Your task to perform on an android device: Is it going to rain this weekend? Image 0: 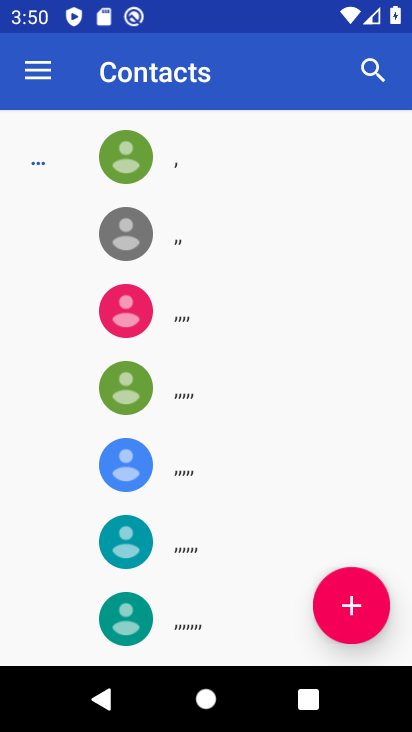
Step 0: press home button
Your task to perform on an android device: Is it going to rain this weekend? Image 1: 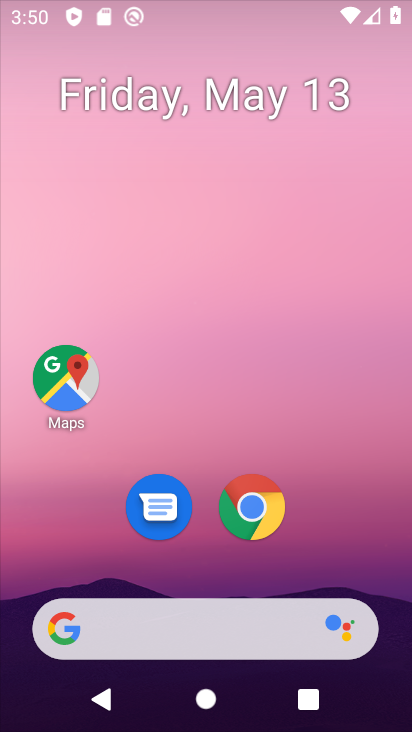
Step 1: drag from (355, 493) to (292, 38)
Your task to perform on an android device: Is it going to rain this weekend? Image 2: 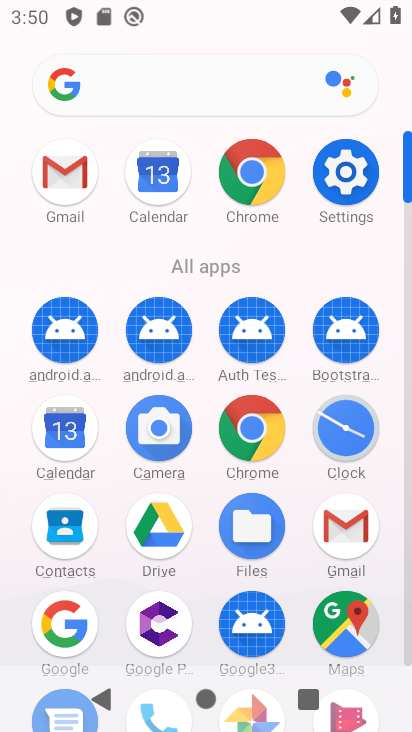
Step 2: click (245, 190)
Your task to perform on an android device: Is it going to rain this weekend? Image 3: 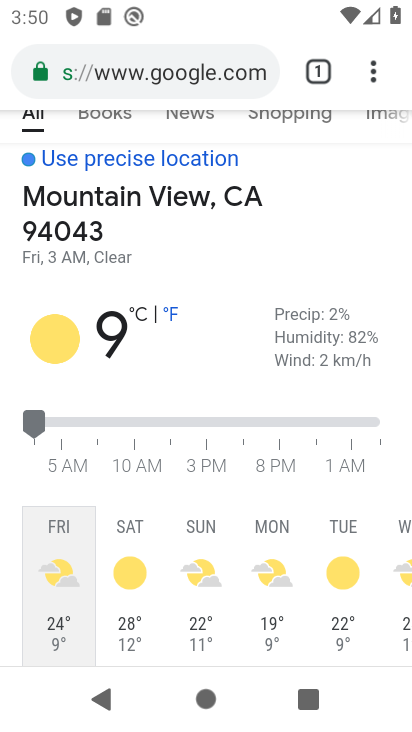
Step 3: click (225, 84)
Your task to perform on an android device: Is it going to rain this weekend? Image 4: 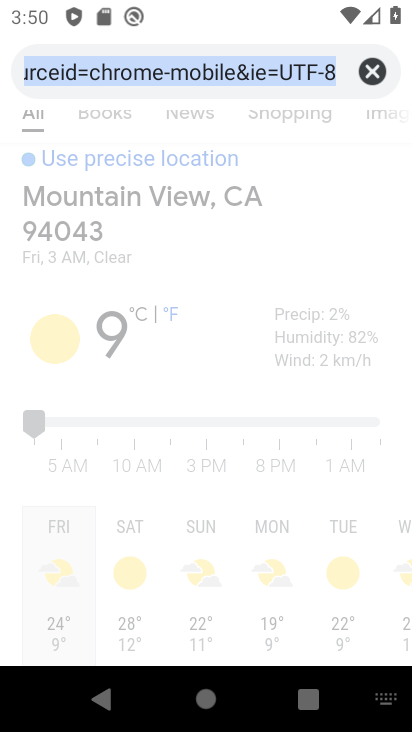
Step 4: click (290, 274)
Your task to perform on an android device: Is it going to rain this weekend? Image 5: 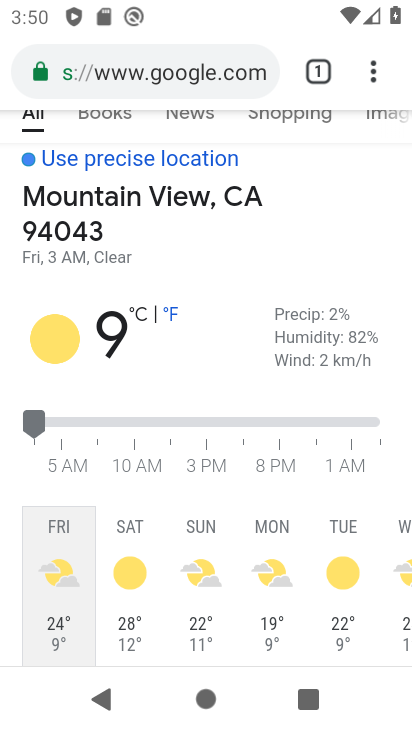
Step 5: task complete